Your task to perform on an android device: open app "Roku - Official Remote Control" (install if not already installed) and go to login screen Image 0: 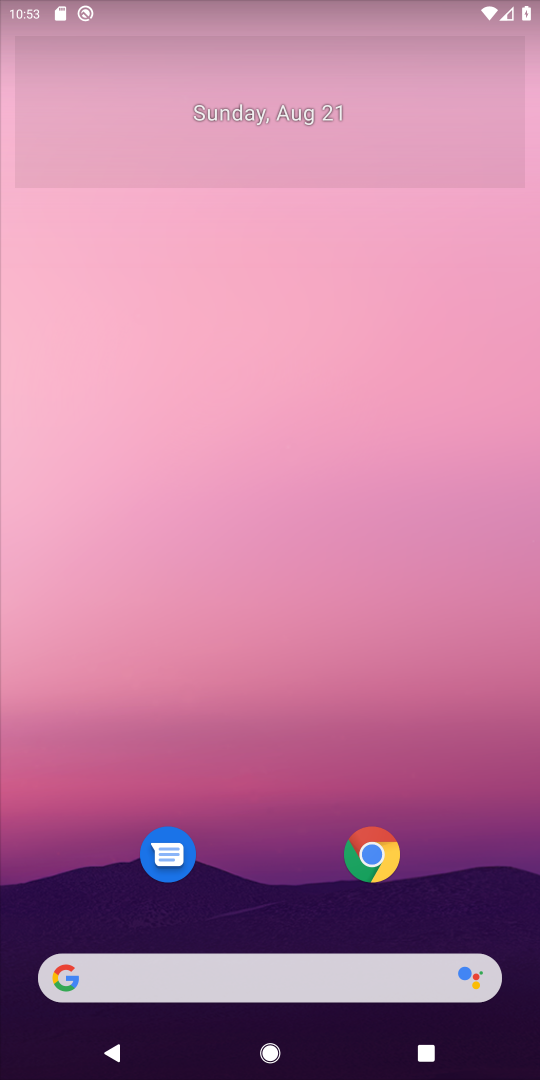
Step 0: drag from (220, 932) to (173, 226)
Your task to perform on an android device: open app "Roku - Official Remote Control" (install if not already installed) and go to login screen Image 1: 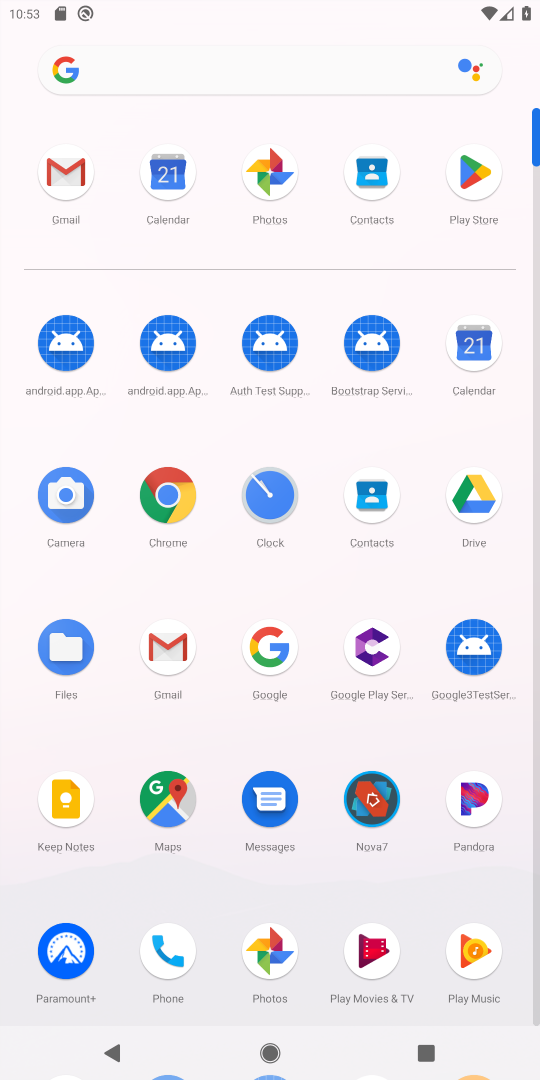
Step 1: click (458, 200)
Your task to perform on an android device: open app "Roku - Official Remote Control" (install if not already installed) and go to login screen Image 2: 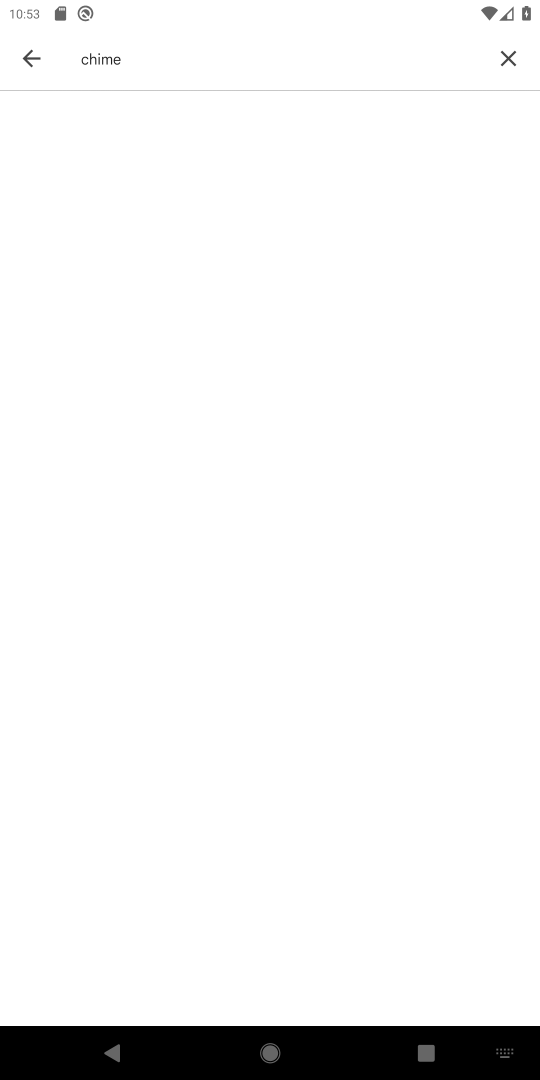
Step 2: click (530, 53)
Your task to perform on an android device: open app "Roku - Official Remote Control" (install if not already installed) and go to login screen Image 3: 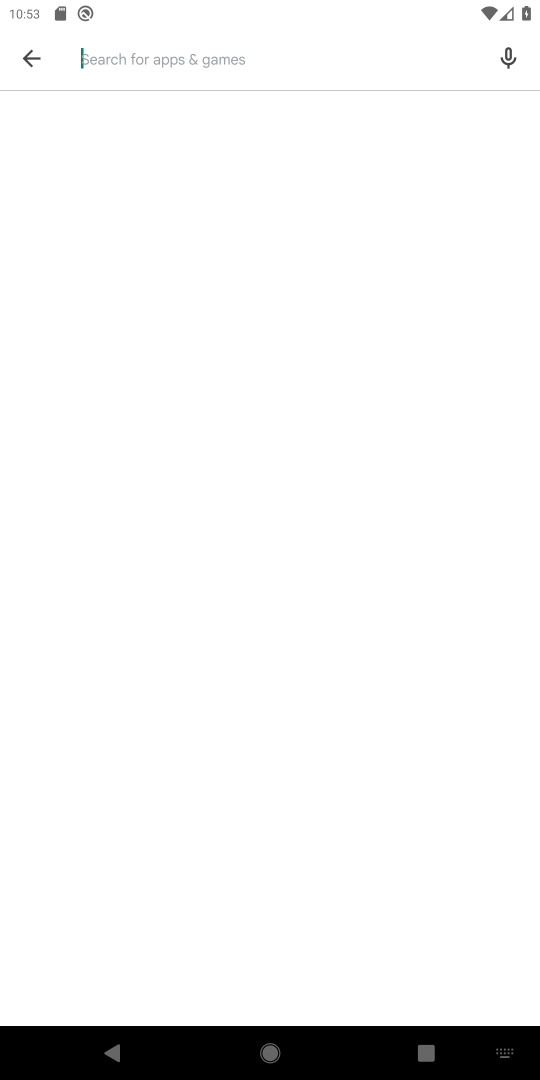
Step 3: click (522, 56)
Your task to perform on an android device: open app "Roku - Official Remote Control" (install if not already installed) and go to login screen Image 4: 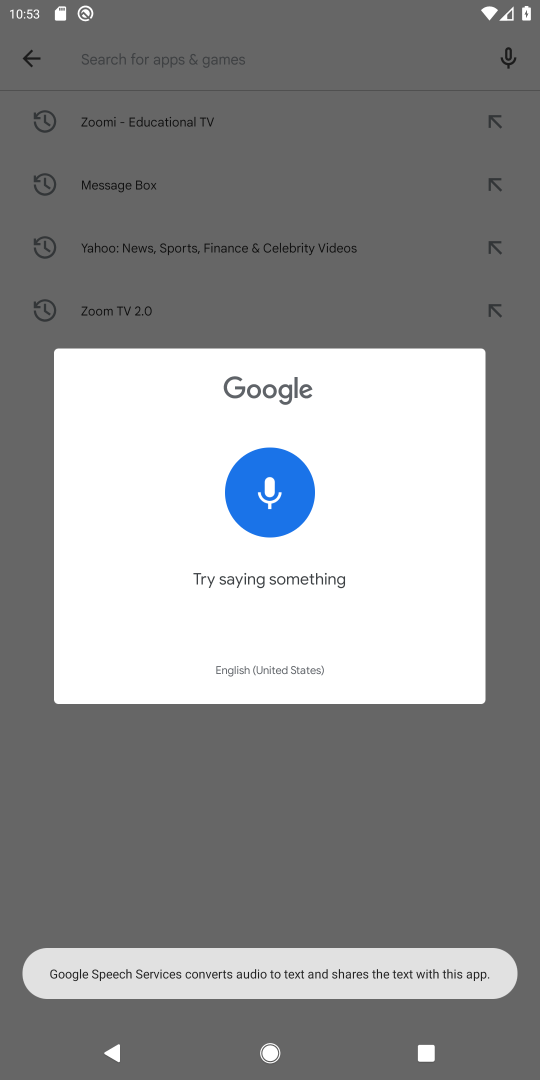
Step 4: type "roku"
Your task to perform on an android device: open app "Roku - Official Remote Control" (install if not already installed) and go to login screen Image 5: 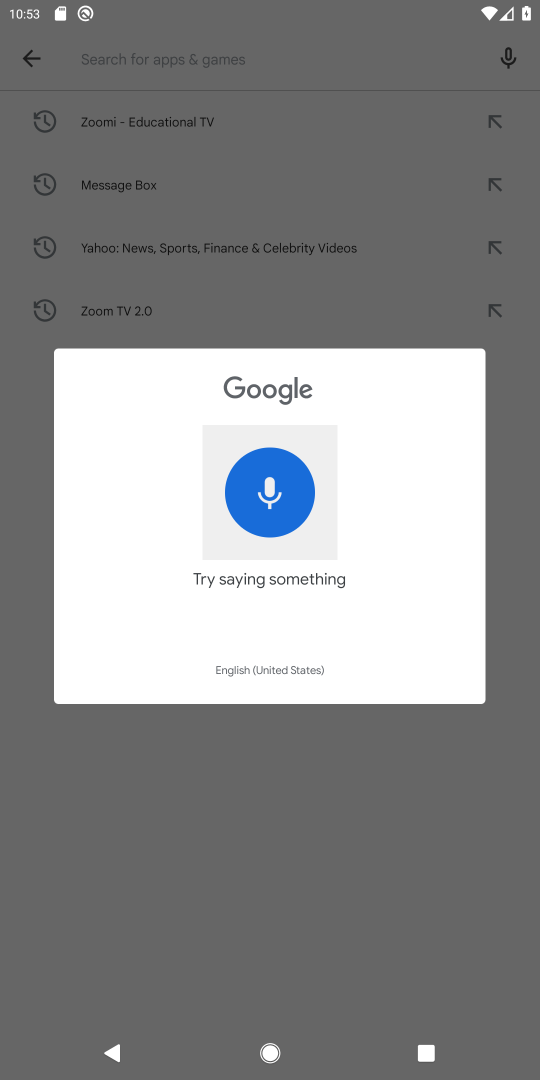
Step 5: click (232, 765)
Your task to perform on an android device: open app "Roku - Official Remote Control" (install if not already installed) and go to login screen Image 6: 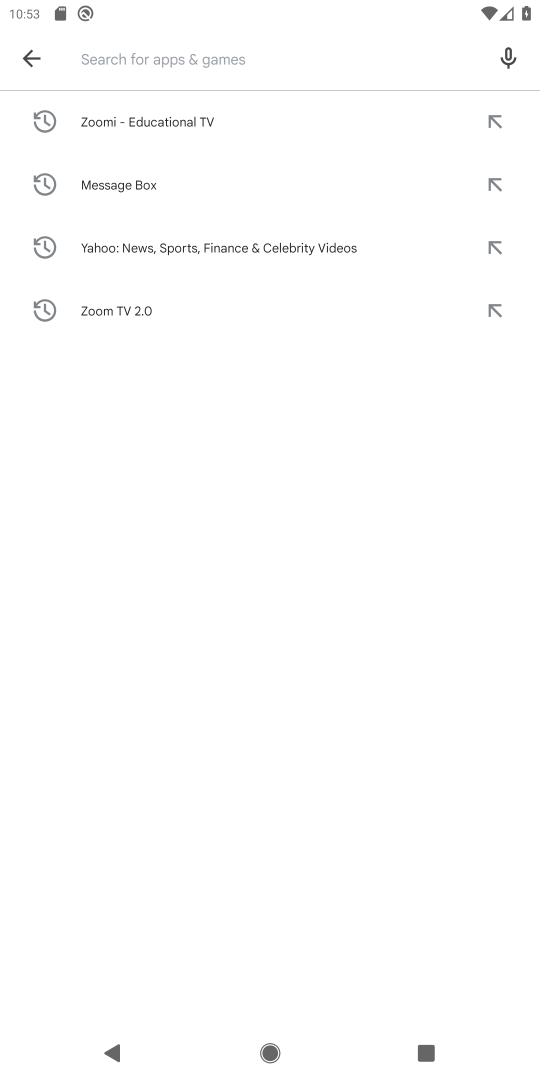
Step 6: click (232, 765)
Your task to perform on an android device: open app "Roku - Official Remote Control" (install if not already installed) and go to login screen Image 7: 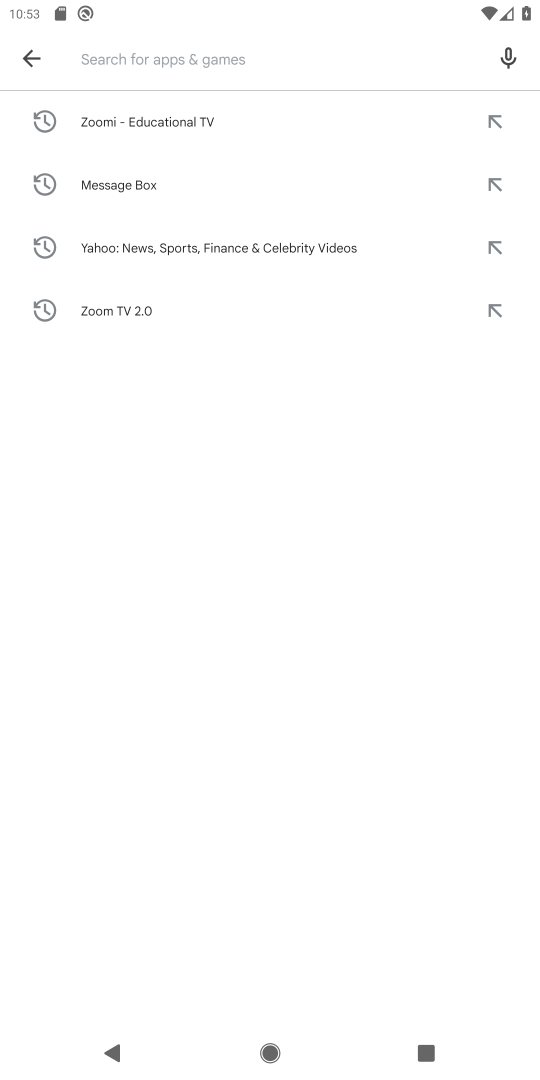
Step 7: type "roku"
Your task to perform on an android device: open app "Roku - Official Remote Control" (install if not already installed) and go to login screen Image 8: 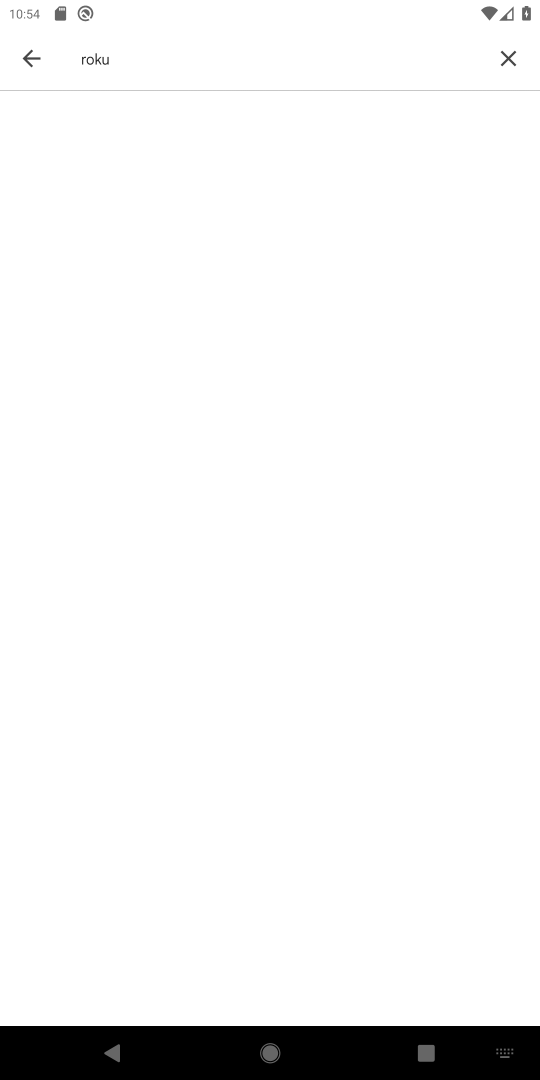
Step 8: task complete